Your task to perform on an android device: toggle show notifications on the lock screen Image 0: 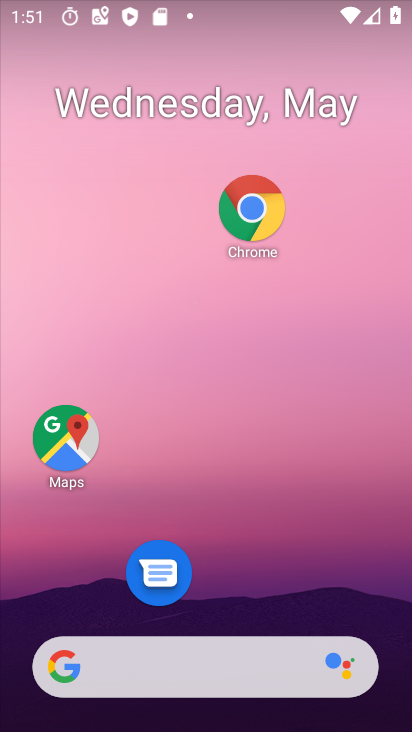
Step 0: drag from (242, 576) to (250, 120)
Your task to perform on an android device: toggle show notifications on the lock screen Image 1: 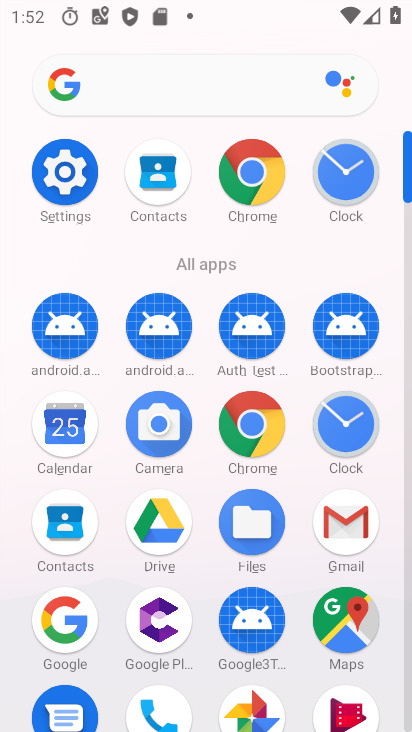
Step 1: click (74, 154)
Your task to perform on an android device: toggle show notifications on the lock screen Image 2: 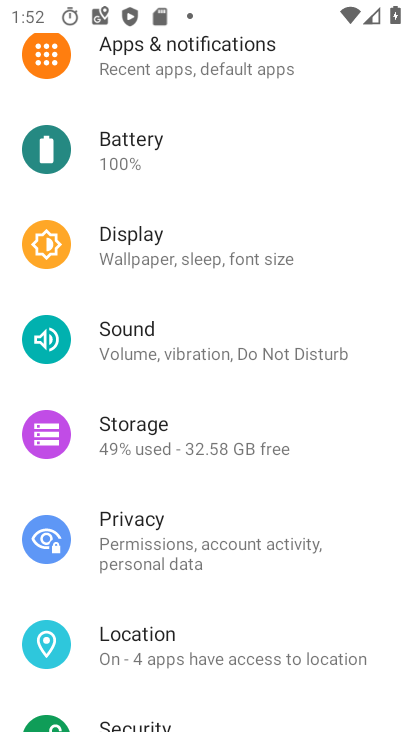
Step 2: click (228, 76)
Your task to perform on an android device: toggle show notifications on the lock screen Image 3: 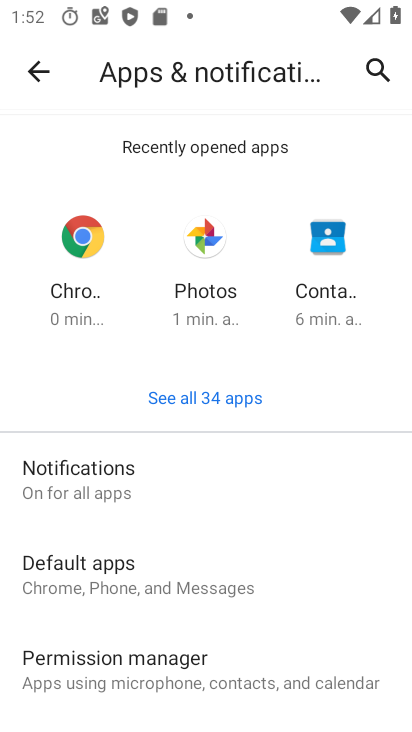
Step 3: click (81, 481)
Your task to perform on an android device: toggle show notifications on the lock screen Image 4: 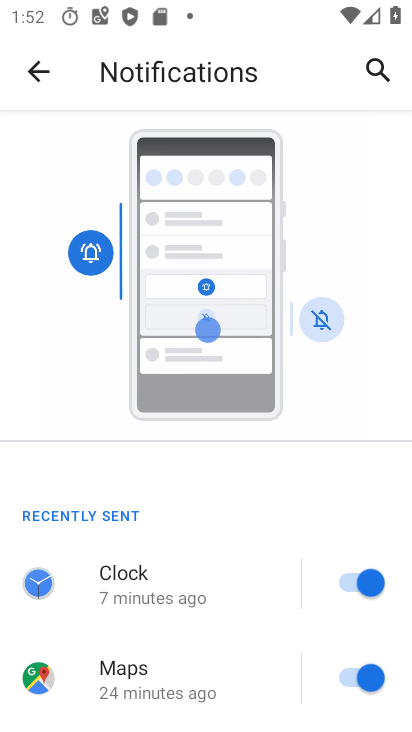
Step 4: drag from (158, 662) to (216, 214)
Your task to perform on an android device: toggle show notifications on the lock screen Image 5: 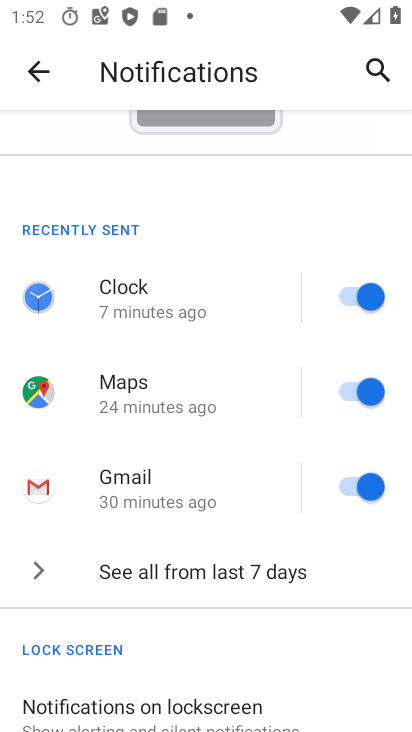
Step 5: drag from (147, 650) to (248, 102)
Your task to perform on an android device: toggle show notifications on the lock screen Image 6: 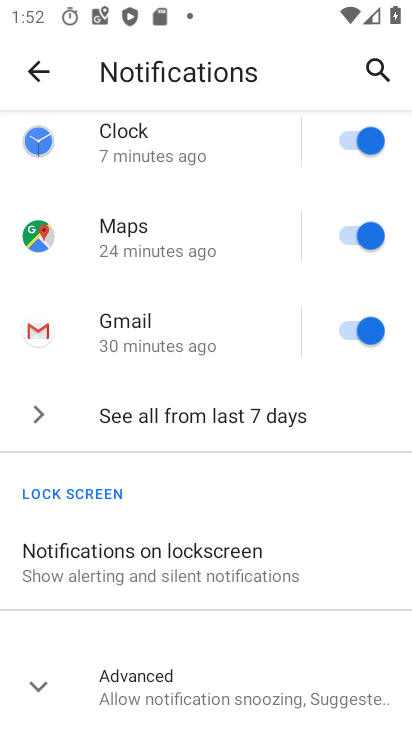
Step 6: click (182, 563)
Your task to perform on an android device: toggle show notifications on the lock screen Image 7: 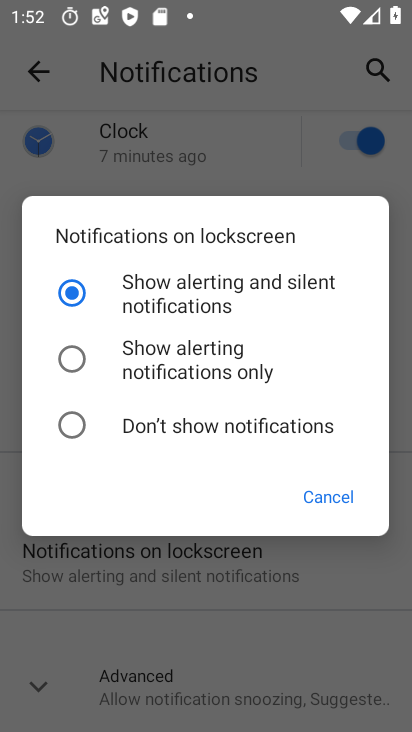
Step 7: click (170, 381)
Your task to perform on an android device: toggle show notifications on the lock screen Image 8: 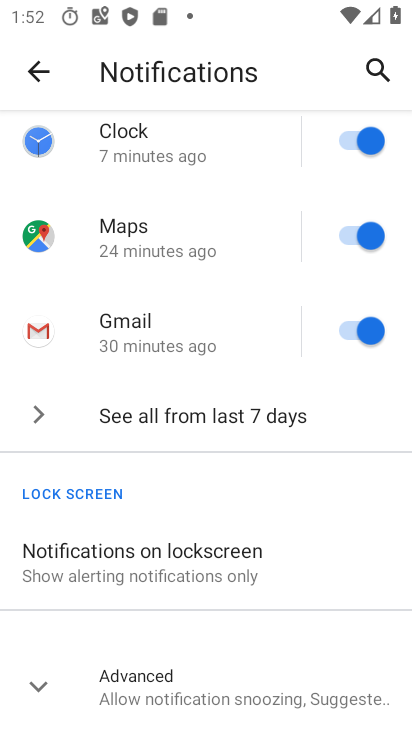
Step 8: task complete